Your task to perform on an android device: Play the last video I watched on Youtube Image 0: 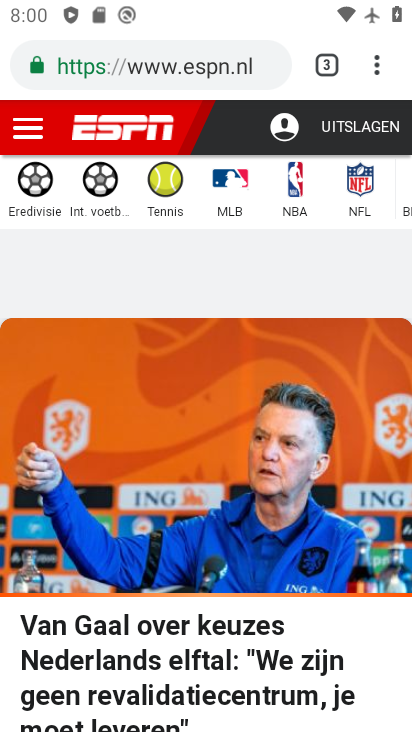
Step 0: press home button
Your task to perform on an android device: Play the last video I watched on Youtube Image 1: 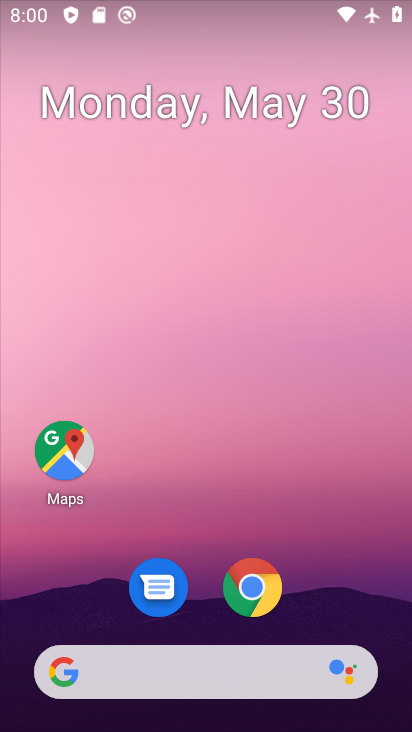
Step 1: drag from (192, 612) to (301, 172)
Your task to perform on an android device: Play the last video I watched on Youtube Image 2: 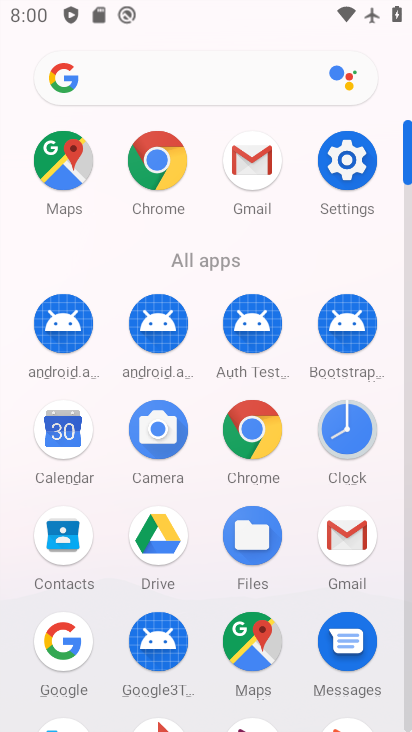
Step 2: drag from (209, 618) to (315, 148)
Your task to perform on an android device: Play the last video I watched on Youtube Image 3: 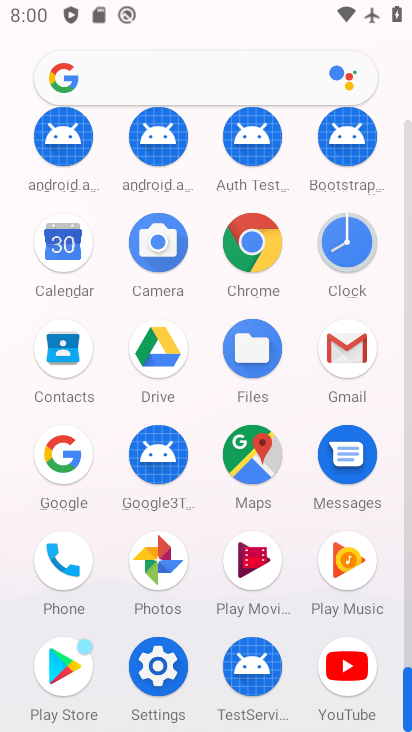
Step 3: click (358, 663)
Your task to perform on an android device: Play the last video I watched on Youtube Image 4: 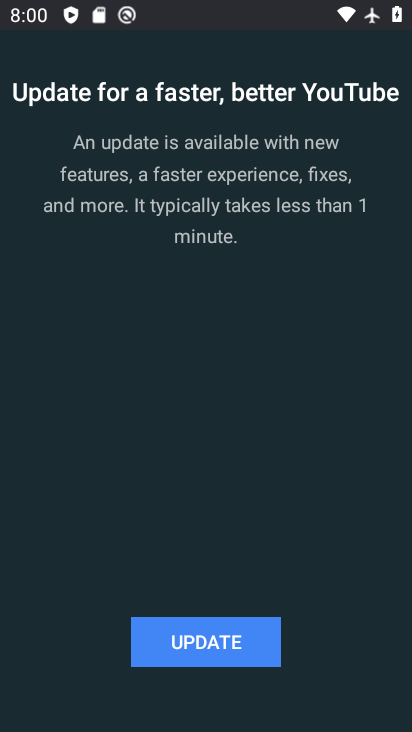
Step 4: click (233, 648)
Your task to perform on an android device: Play the last video I watched on Youtube Image 5: 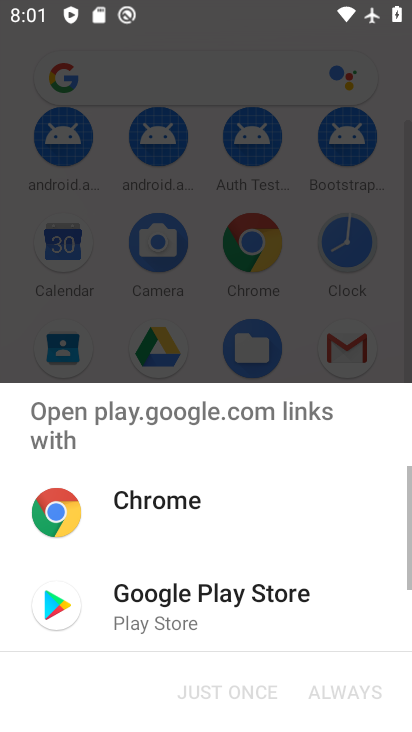
Step 5: click (168, 595)
Your task to perform on an android device: Play the last video I watched on Youtube Image 6: 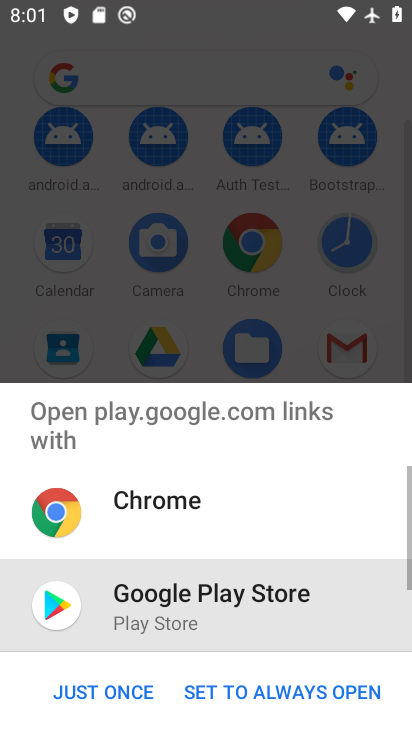
Step 6: click (133, 689)
Your task to perform on an android device: Play the last video I watched on Youtube Image 7: 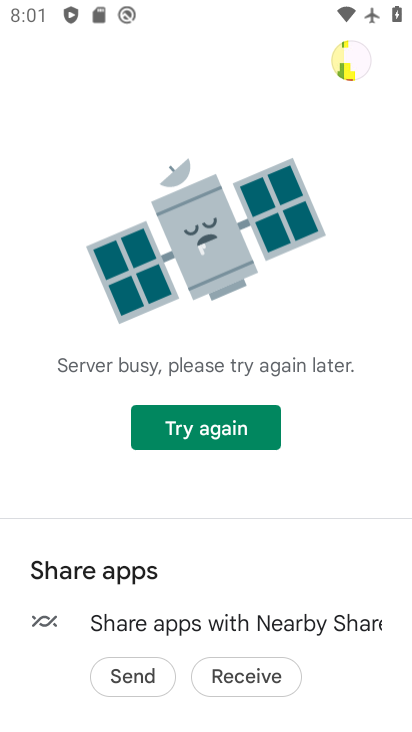
Step 7: click (217, 430)
Your task to perform on an android device: Play the last video I watched on Youtube Image 8: 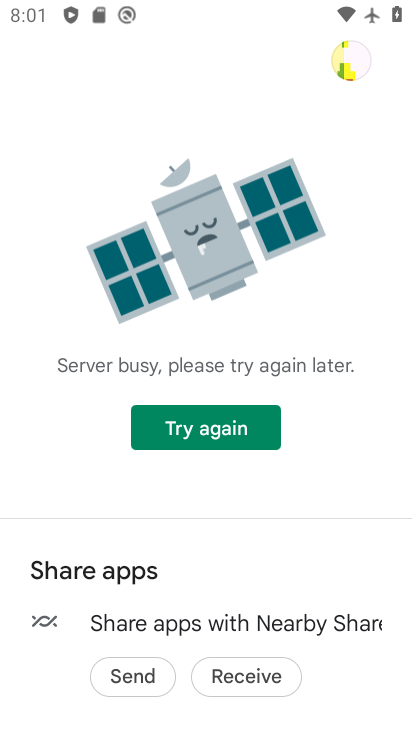
Step 8: click (198, 427)
Your task to perform on an android device: Play the last video I watched on Youtube Image 9: 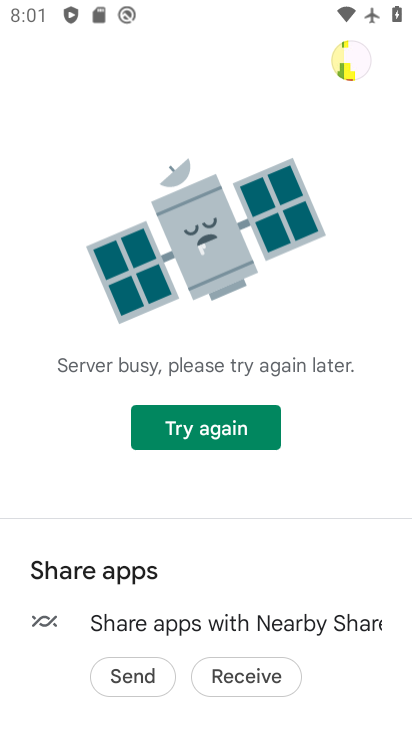
Step 9: task complete